Your task to perform on an android device: Go to settings Image 0: 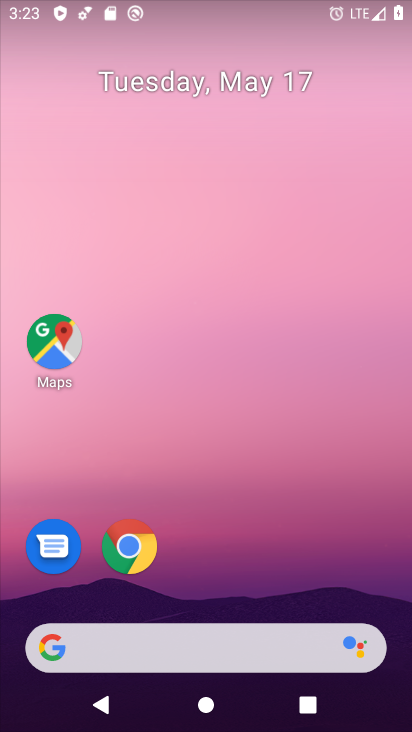
Step 0: press home button
Your task to perform on an android device: Go to settings Image 1: 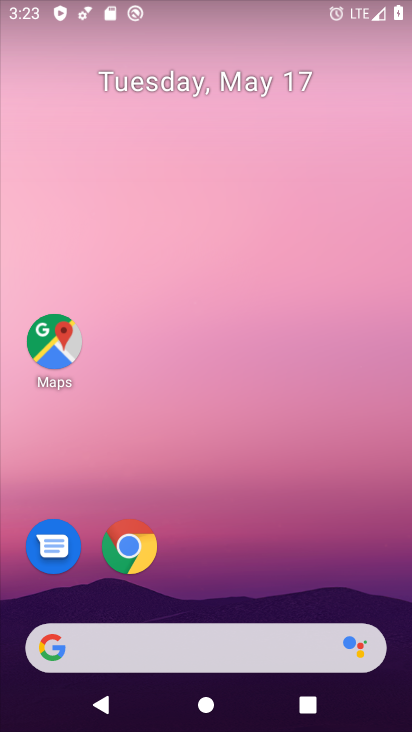
Step 1: drag from (244, 550) to (319, 35)
Your task to perform on an android device: Go to settings Image 2: 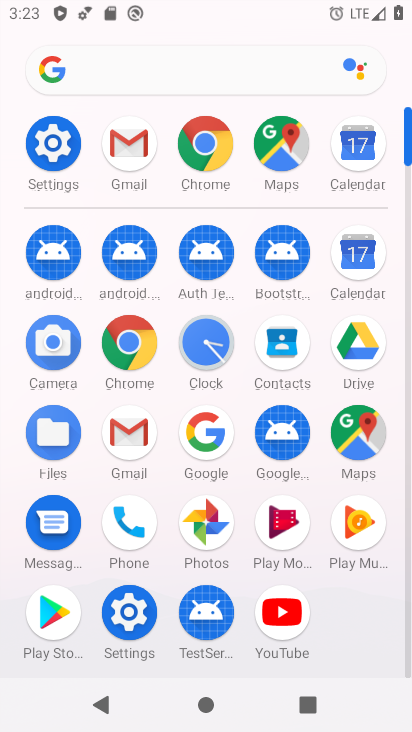
Step 2: click (122, 608)
Your task to perform on an android device: Go to settings Image 3: 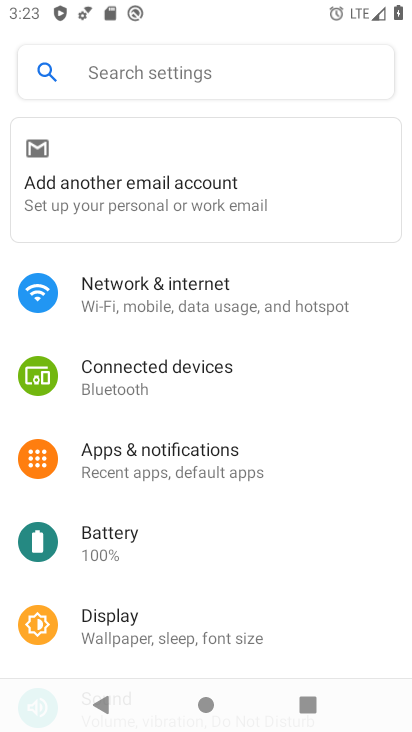
Step 3: task complete